Your task to perform on an android device: Search for vegetarian restaurants on Maps Image 0: 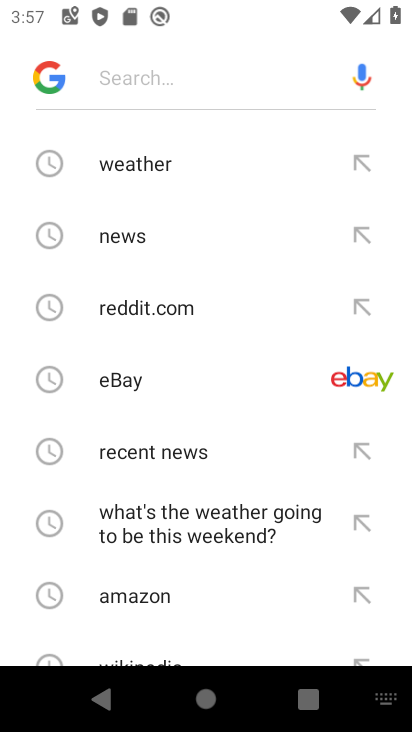
Step 0: press home button
Your task to perform on an android device: Search for vegetarian restaurants on Maps Image 1: 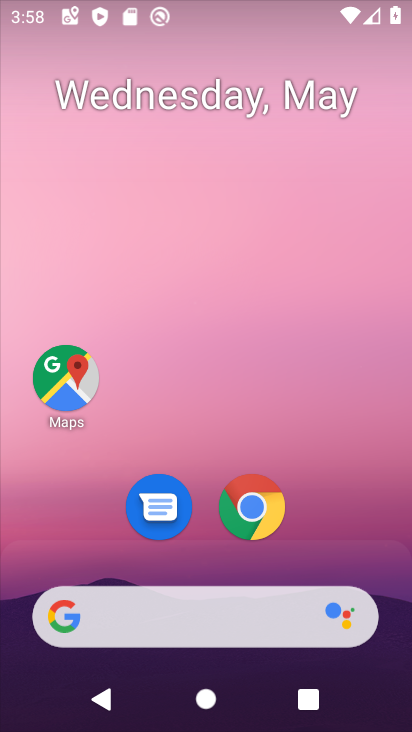
Step 1: drag from (167, 607) to (211, 197)
Your task to perform on an android device: Search for vegetarian restaurants on Maps Image 2: 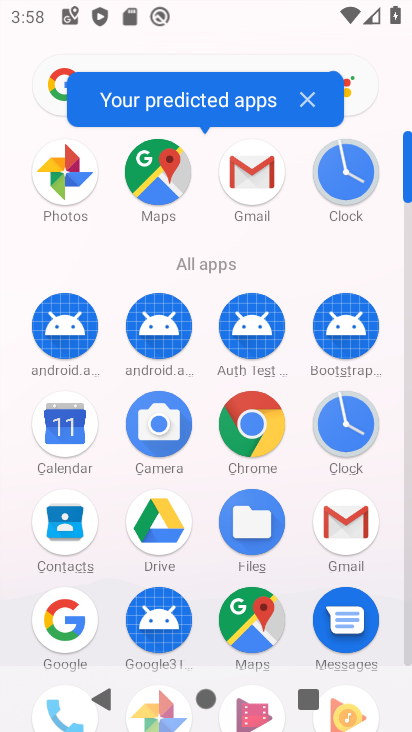
Step 2: click (175, 175)
Your task to perform on an android device: Search for vegetarian restaurants on Maps Image 3: 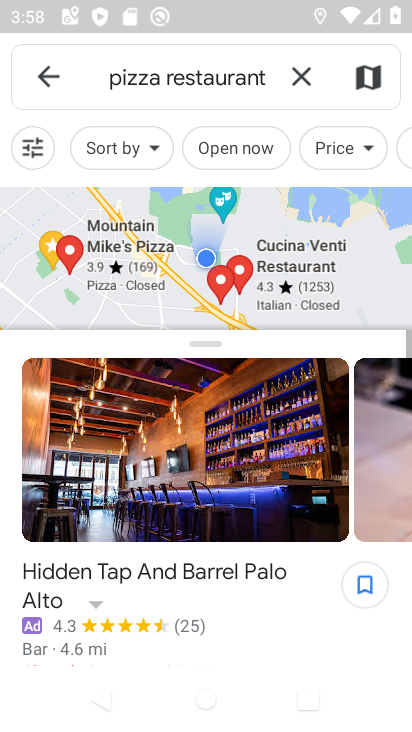
Step 3: click (318, 70)
Your task to perform on an android device: Search for vegetarian restaurants on Maps Image 4: 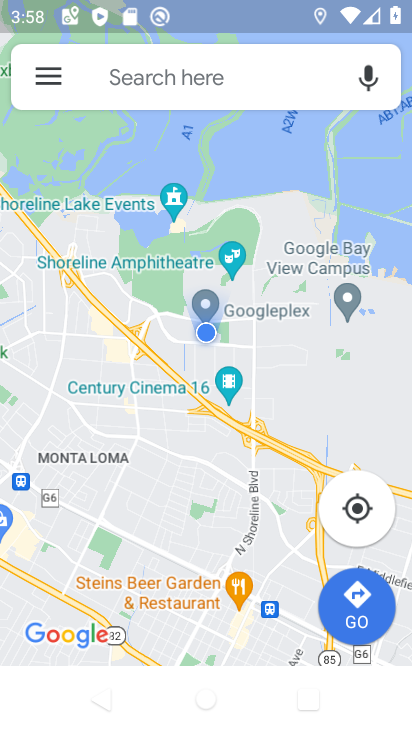
Step 4: click (259, 62)
Your task to perform on an android device: Search for vegetarian restaurants on Maps Image 5: 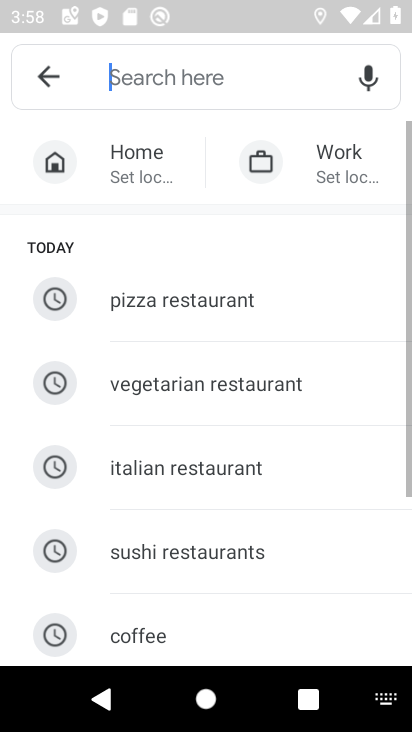
Step 5: click (220, 379)
Your task to perform on an android device: Search for vegetarian restaurants on Maps Image 6: 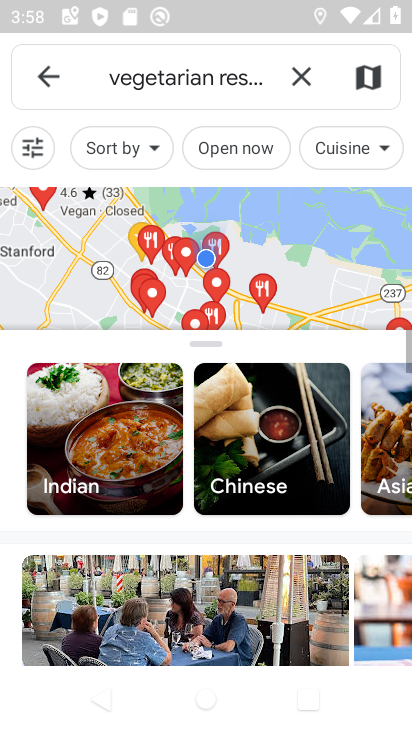
Step 6: task complete